Your task to perform on an android device: delete the emails in spam in the gmail app Image 0: 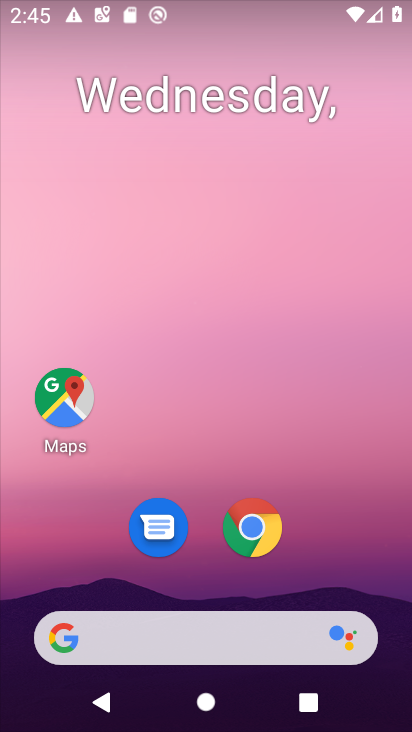
Step 0: drag from (351, 546) to (315, 104)
Your task to perform on an android device: delete the emails in spam in the gmail app Image 1: 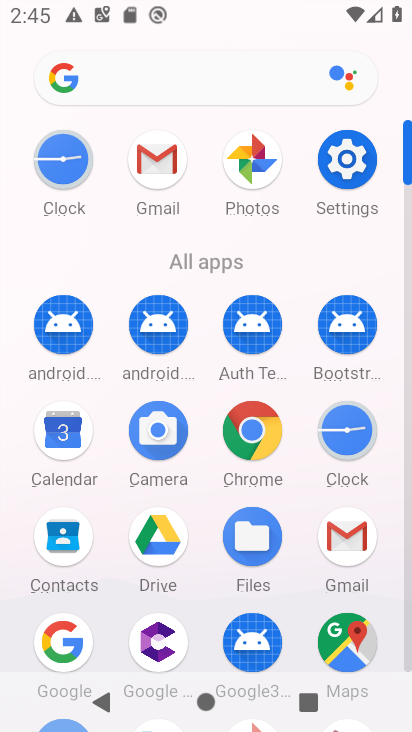
Step 1: click (351, 531)
Your task to perform on an android device: delete the emails in spam in the gmail app Image 2: 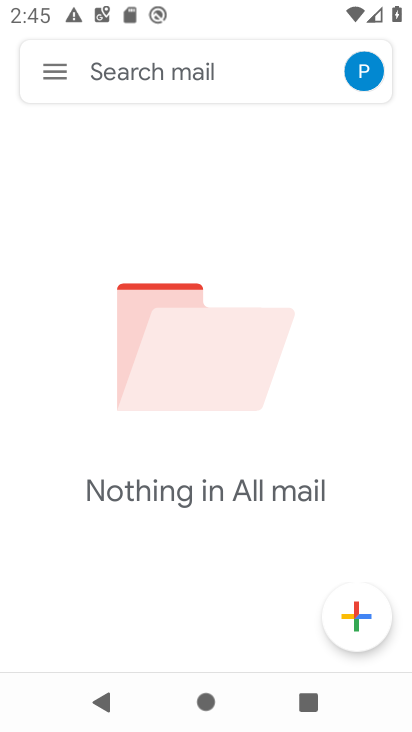
Step 2: click (58, 61)
Your task to perform on an android device: delete the emails in spam in the gmail app Image 3: 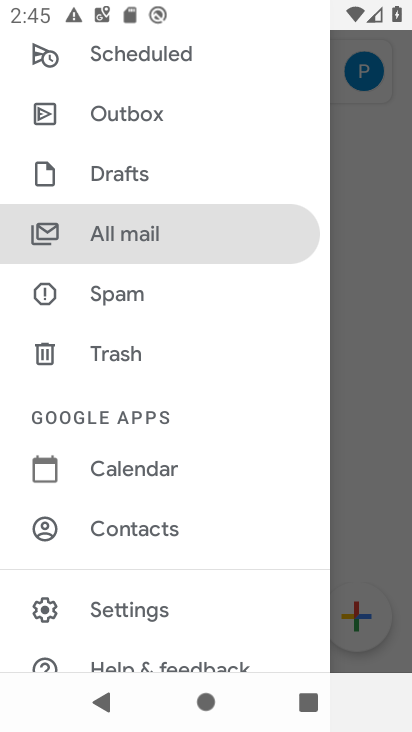
Step 3: click (128, 292)
Your task to perform on an android device: delete the emails in spam in the gmail app Image 4: 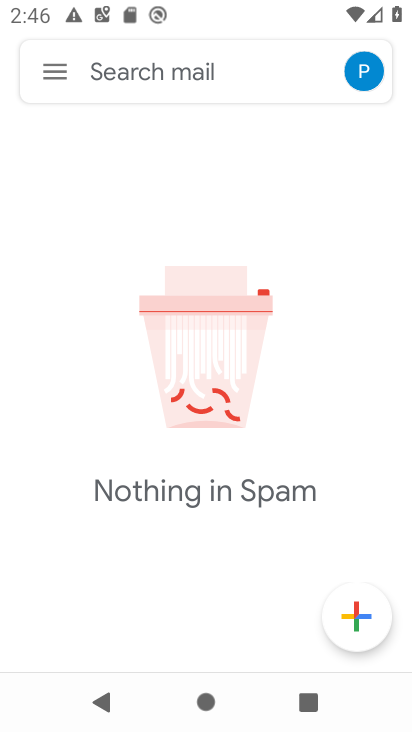
Step 4: task complete